Your task to perform on an android device: turn notification dots on Image 0: 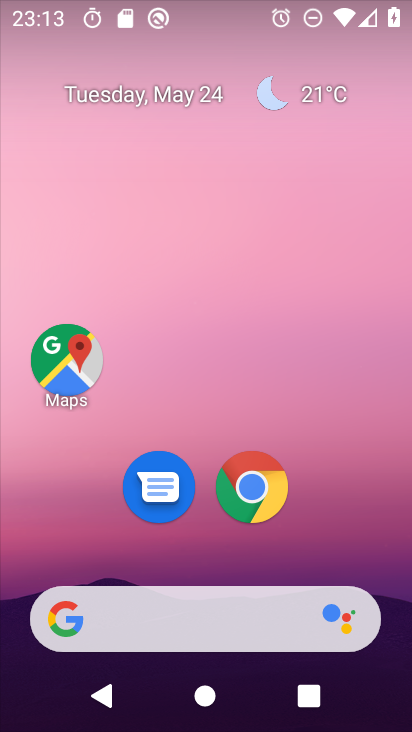
Step 0: drag from (369, 578) to (346, 22)
Your task to perform on an android device: turn notification dots on Image 1: 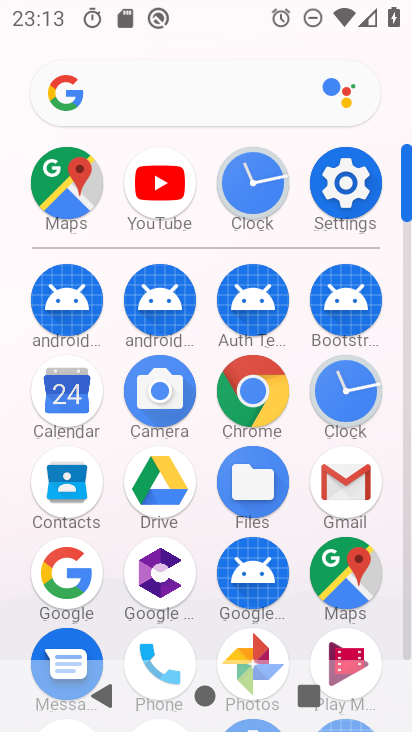
Step 1: click (343, 192)
Your task to perform on an android device: turn notification dots on Image 2: 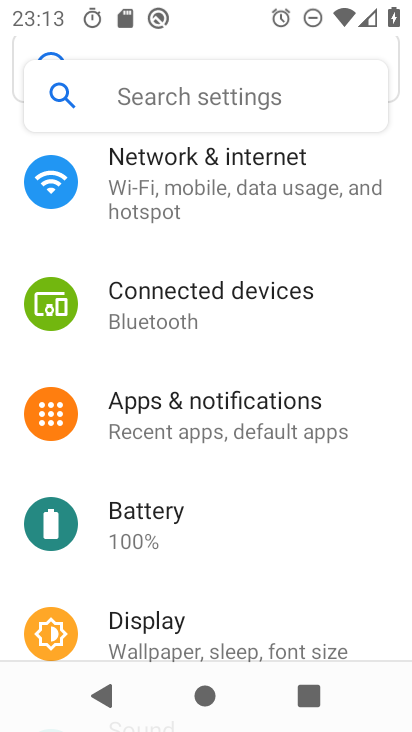
Step 2: click (183, 423)
Your task to perform on an android device: turn notification dots on Image 3: 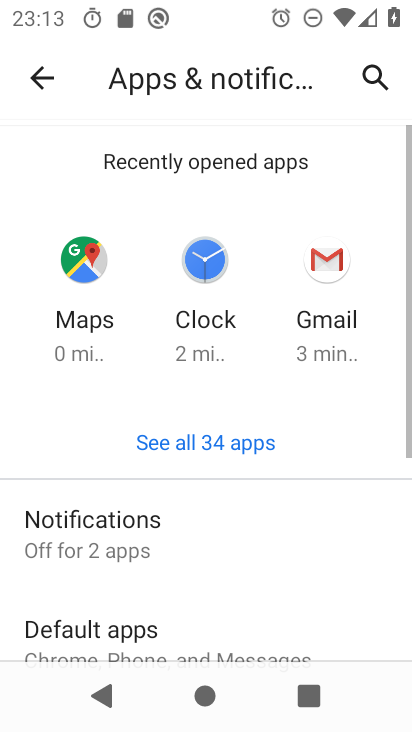
Step 3: click (112, 530)
Your task to perform on an android device: turn notification dots on Image 4: 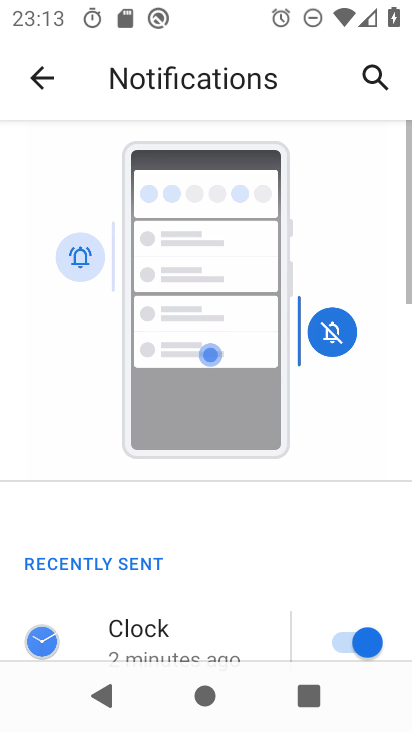
Step 4: drag from (212, 617) to (204, 61)
Your task to perform on an android device: turn notification dots on Image 5: 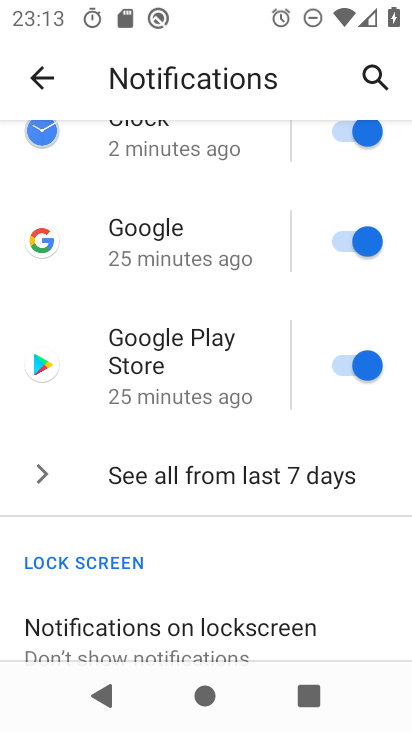
Step 5: drag from (207, 526) to (178, 158)
Your task to perform on an android device: turn notification dots on Image 6: 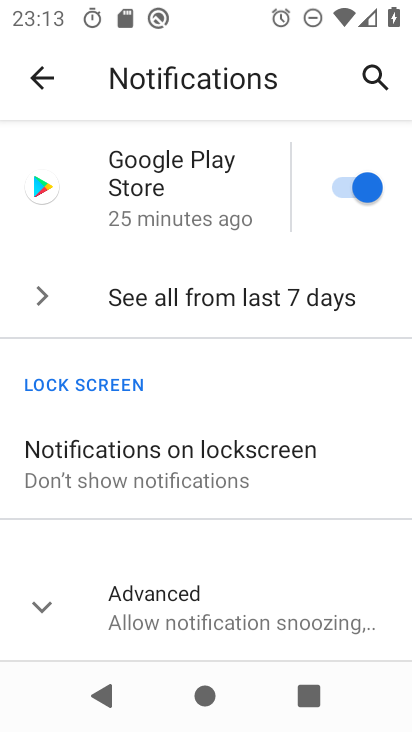
Step 6: click (36, 617)
Your task to perform on an android device: turn notification dots on Image 7: 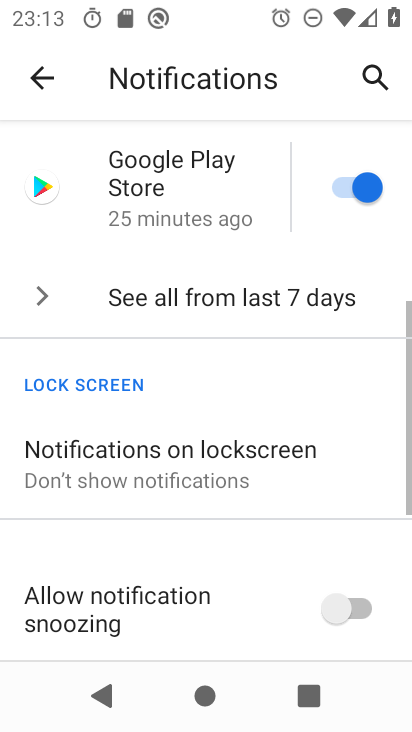
Step 7: drag from (185, 631) to (187, 113)
Your task to perform on an android device: turn notification dots on Image 8: 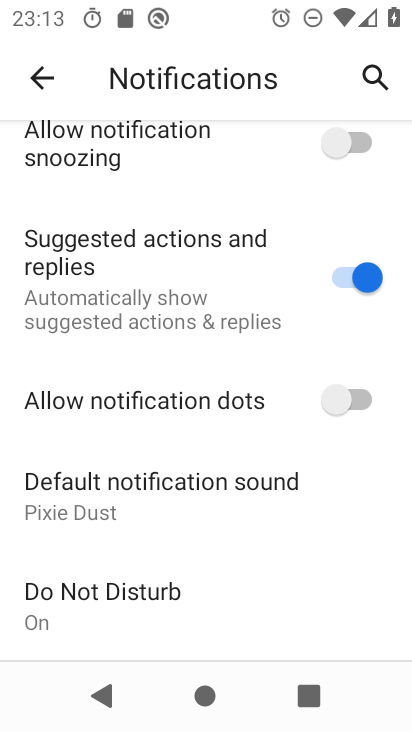
Step 8: drag from (156, 542) to (120, 152)
Your task to perform on an android device: turn notification dots on Image 9: 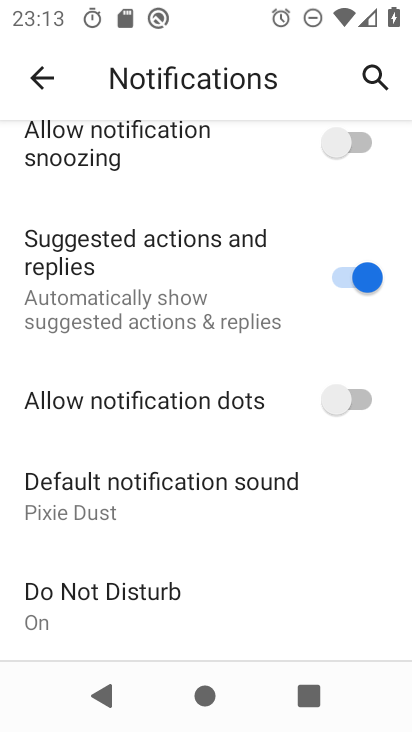
Step 9: click (349, 405)
Your task to perform on an android device: turn notification dots on Image 10: 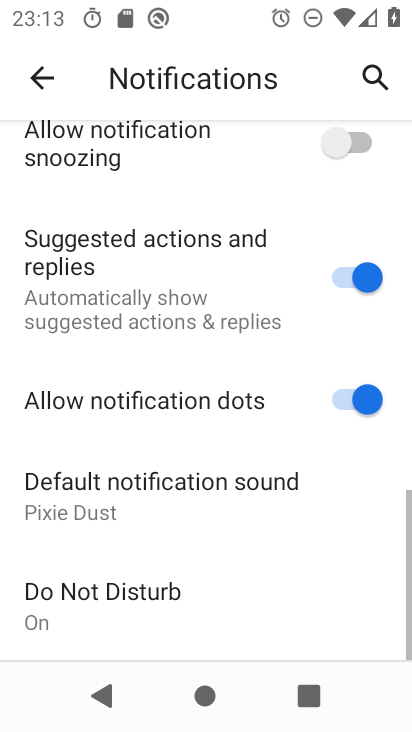
Step 10: task complete